Your task to perform on an android device: Go to internet settings Image 0: 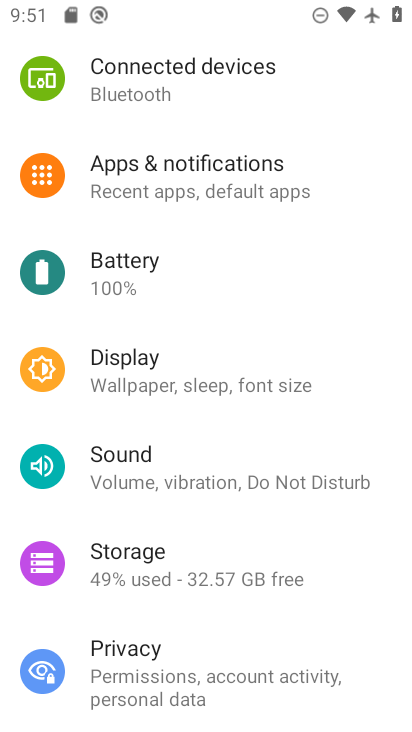
Step 0: press home button
Your task to perform on an android device: Go to internet settings Image 1: 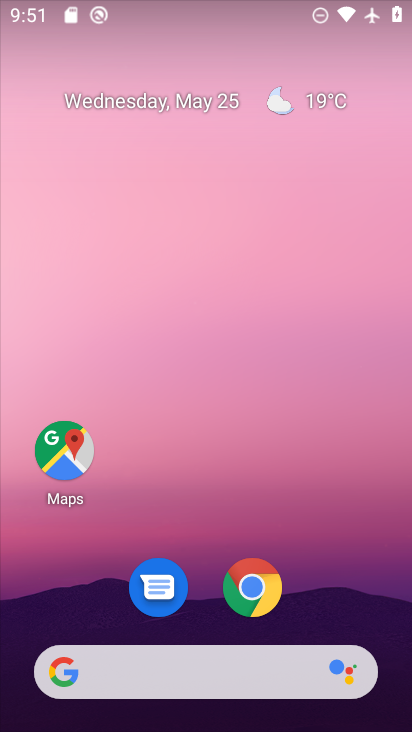
Step 1: drag from (383, 639) to (257, 159)
Your task to perform on an android device: Go to internet settings Image 2: 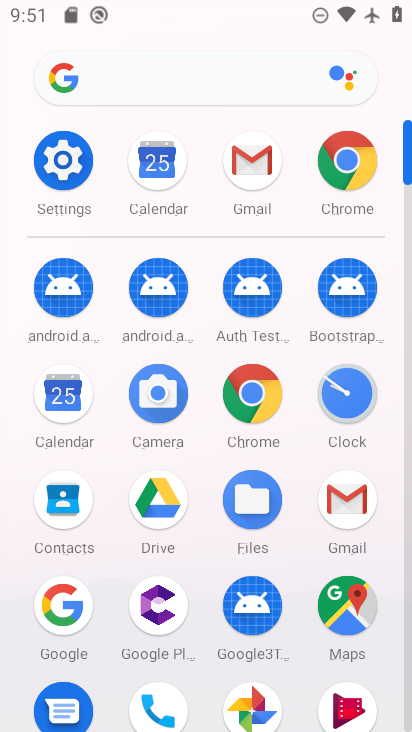
Step 2: click (409, 705)
Your task to perform on an android device: Go to internet settings Image 3: 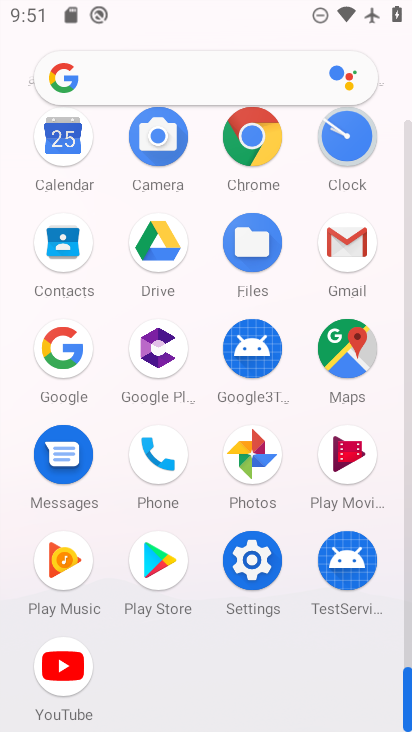
Step 3: click (254, 561)
Your task to perform on an android device: Go to internet settings Image 4: 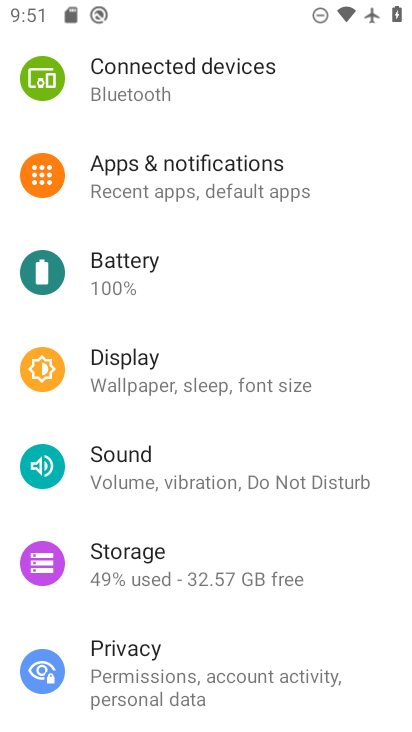
Step 4: drag from (334, 238) to (328, 571)
Your task to perform on an android device: Go to internet settings Image 5: 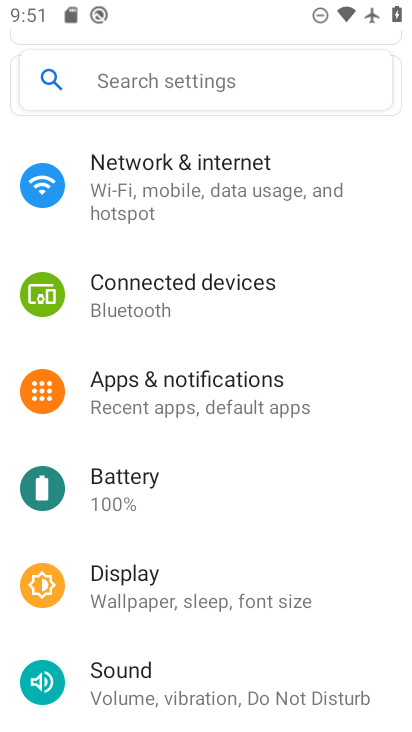
Step 5: click (142, 165)
Your task to perform on an android device: Go to internet settings Image 6: 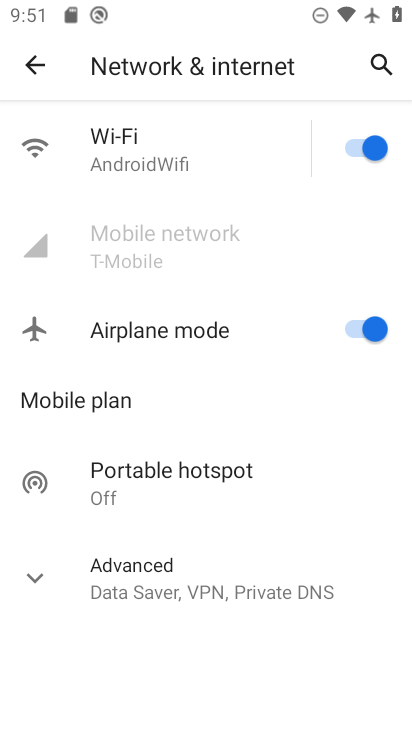
Step 6: click (358, 320)
Your task to perform on an android device: Go to internet settings Image 7: 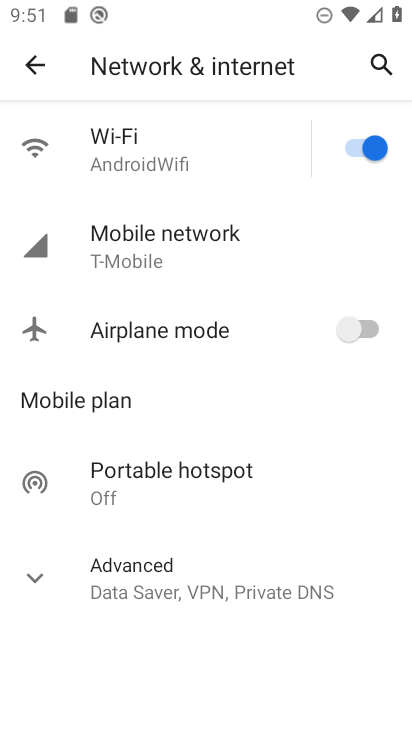
Step 7: click (108, 152)
Your task to perform on an android device: Go to internet settings Image 8: 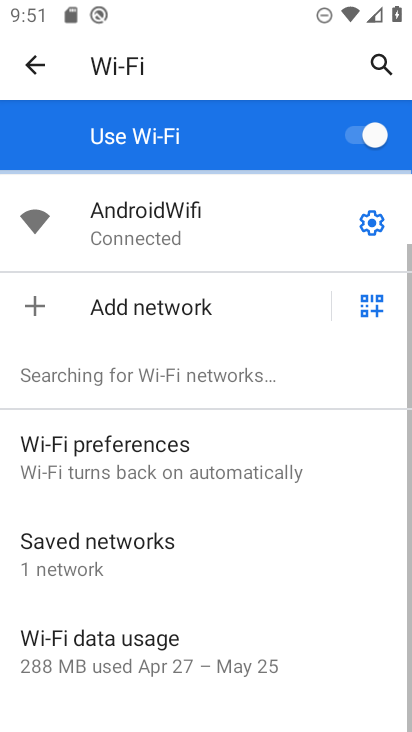
Step 8: task complete